Your task to perform on an android device: Open calendar and show me the first week of next month Image 0: 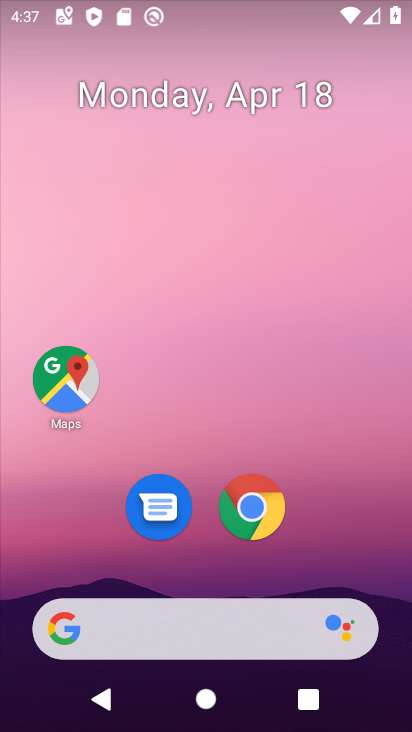
Step 0: drag from (279, 573) to (179, 210)
Your task to perform on an android device: Open calendar and show me the first week of next month Image 1: 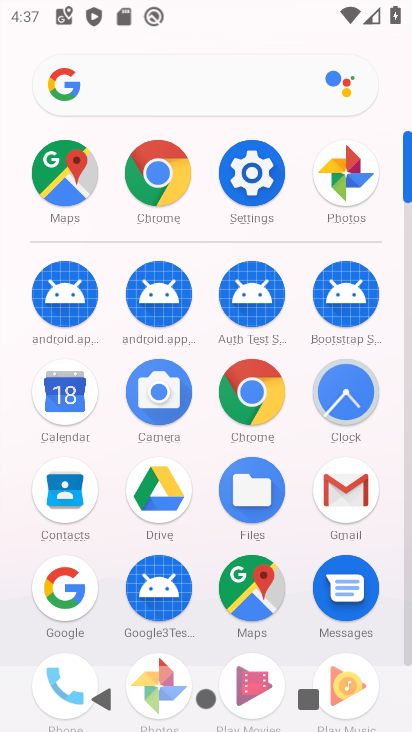
Step 1: click (73, 392)
Your task to perform on an android device: Open calendar and show me the first week of next month Image 2: 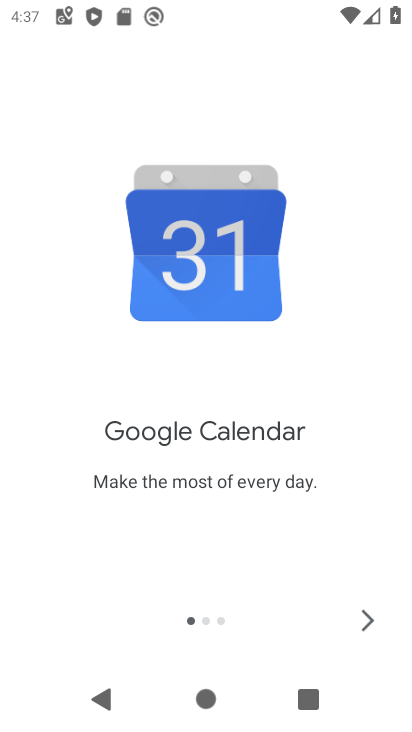
Step 2: click (364, 611)
Your task to perform on an android device: Open calendar and show me the first week of next month Image 3: 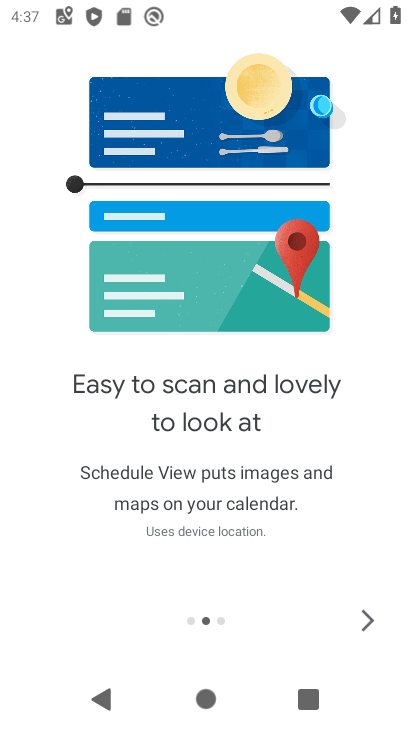
Step 3: click (362, 619)
Your task to perform on an android device: Open calendar and show me the first week of next month Image 4: 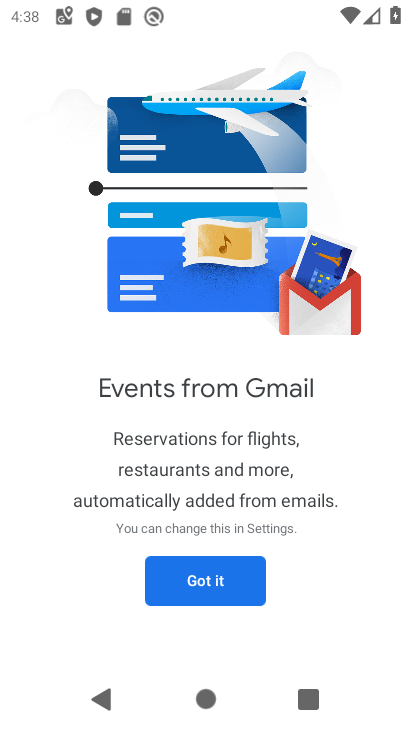
Step 4: click (362, 624)
Your task to perform on an android device: Open calendar and show me the first week of next month Image 5: 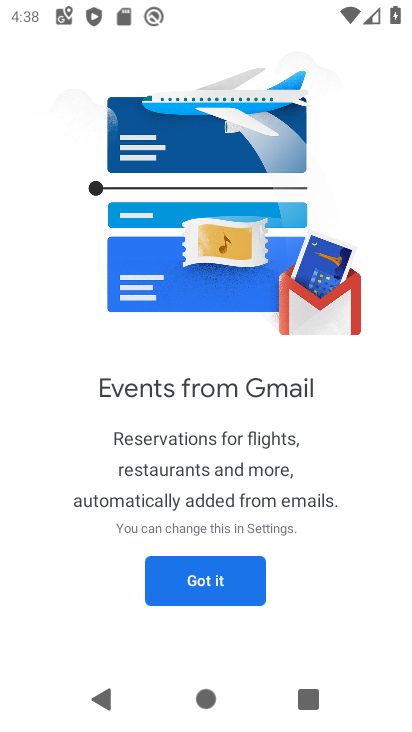
Step 5: click (211, 581)
Your task to perform on an android device: Open calendar and show me the first week of next month Image 6: 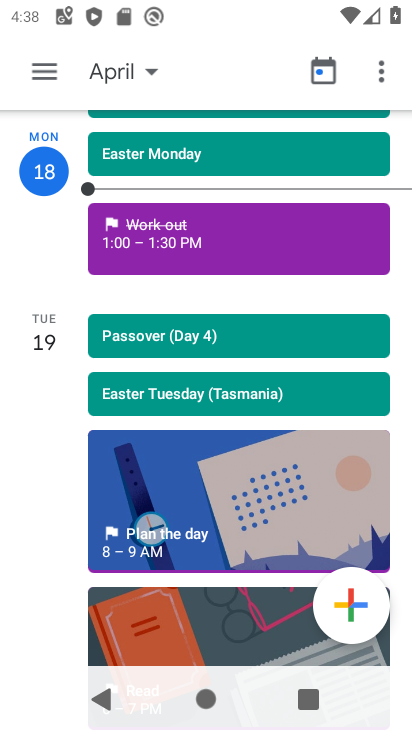
Step 6: click (146, 75)
Your task to perform on an android device: Open calendar and show me the first week of next month Image 7: 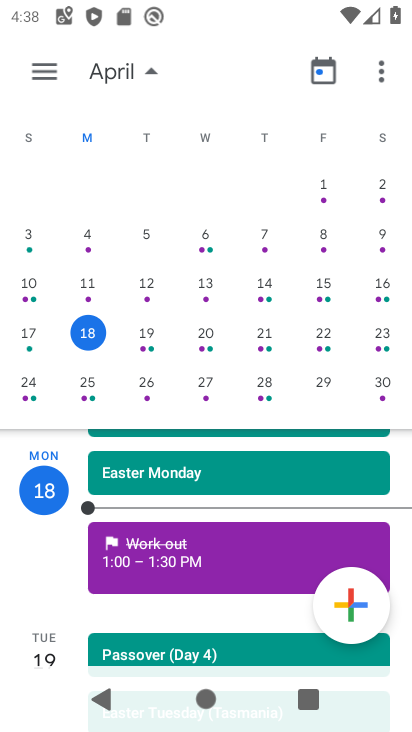
Step 7: drag from (318, 299) to (85, 255)
Your task to perform on an android device: Open calendar and show me the first week of next month Image 8: 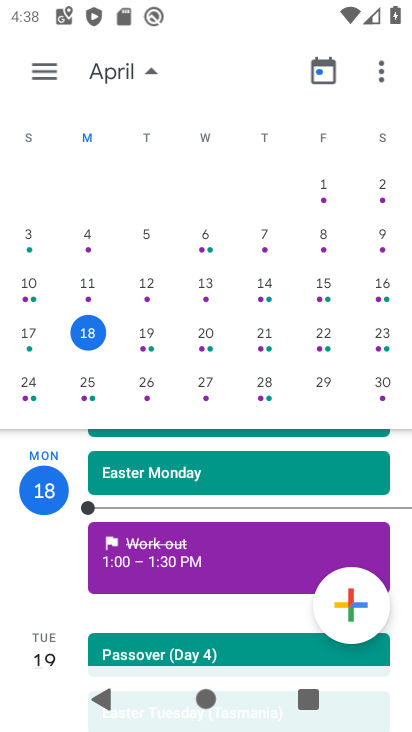
Step 8: drag from (271, 227) to (3, 230)
Your task to perform on an android device: Open calendar and show me the first week of next month Image 9: 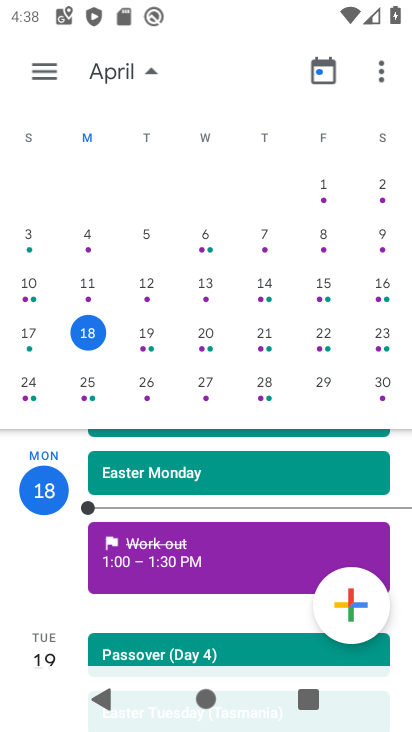
Step 9: drag from (373, 315) to (0, 310)
Your task to perform on an android device: Open calendar and show me the first week of next month Image 10: 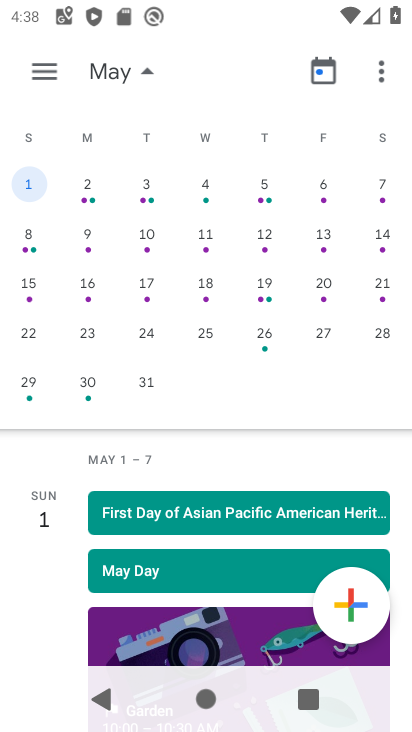
Step 10: click (258, 186)
Your task to perform on an android device: Open calendar and show me the first week of next month Image 11: 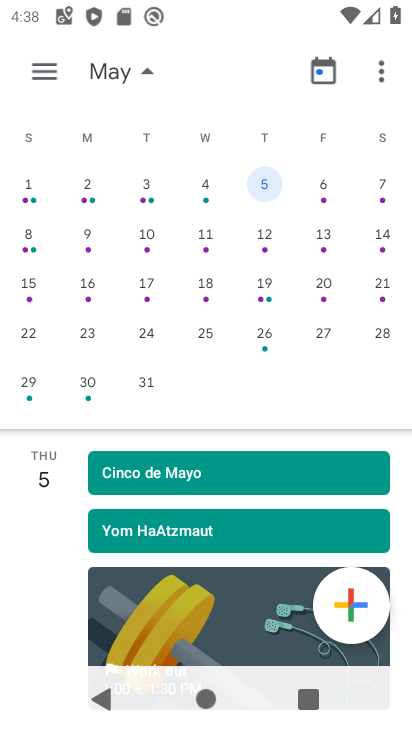
Step 11: task complete